Your task to perform on an android device: turn off airplane mode Image 0: 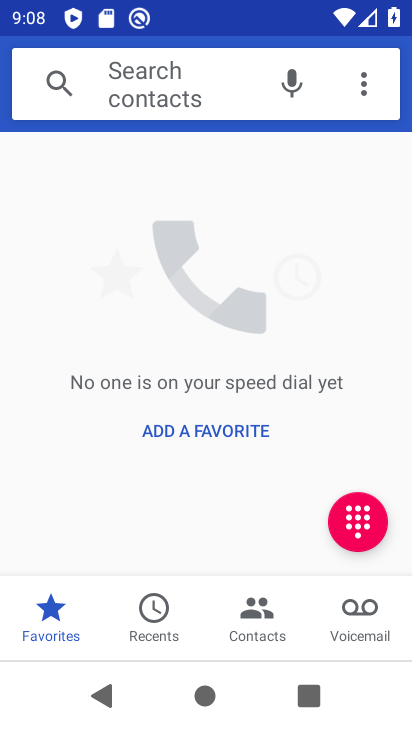
Step 0: press home button
Your task to perform on an android device: turn off airplane mode Image 1: 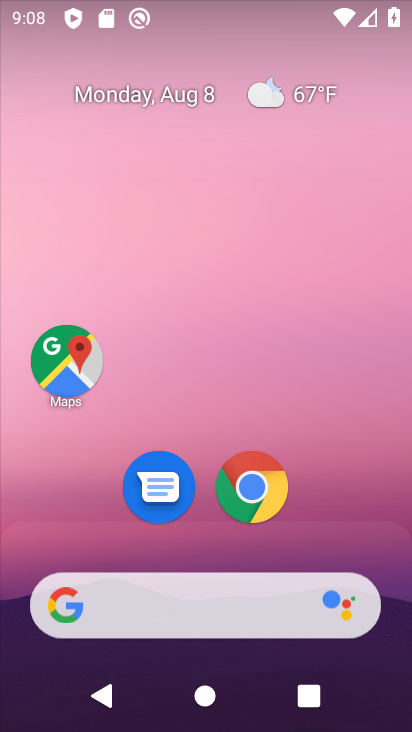
Step 1: drag from (214, 554) to (244, 51)
Your task to perform on an android device: turn off airplane mode Image 2: 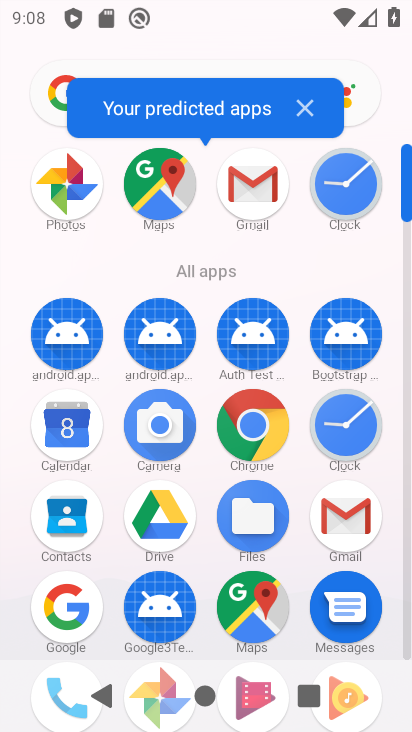
Step 2: drag from (109, 568) to (99, 185)
Your task to perform on an android device: turn off airplane mode Image 3: 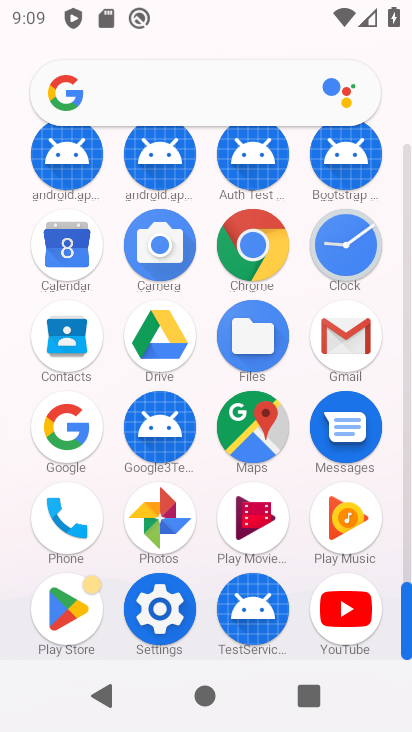
Step 3: click (168, 616)
Your task to perform on an android device: turn off airplane mode Image 4: 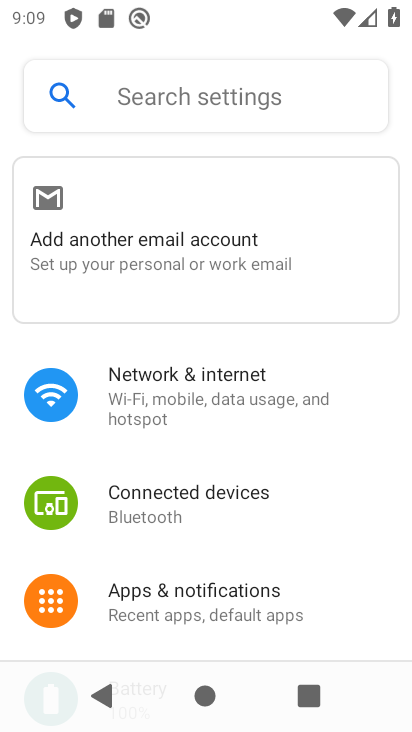
Step 4: click (130, 377)
Your task to perform on an android device: turn off airplane mode Image 5: 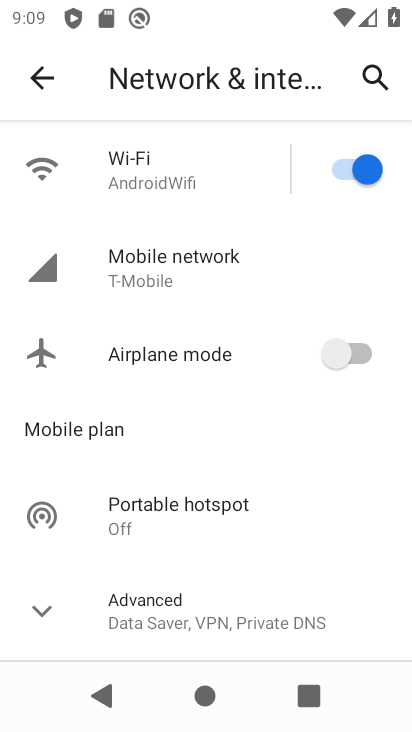
Step 5: task complete